Your task to perform on an android device: turn off priority inbox in the gmail app Image 0: 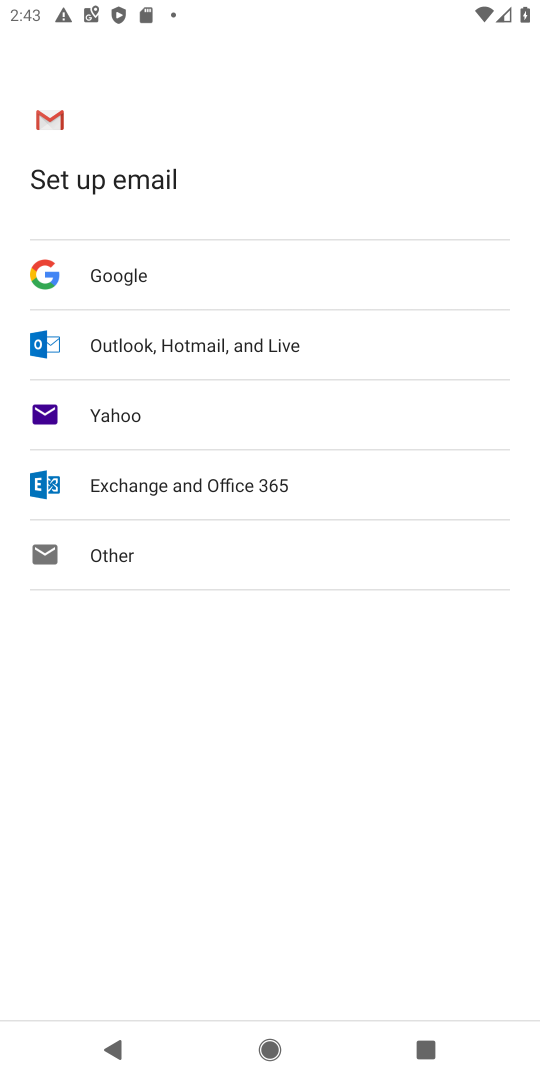
Step 0: press back button
Your task to perform on an android device: turn off priority inbox in the gmail app Image 1: 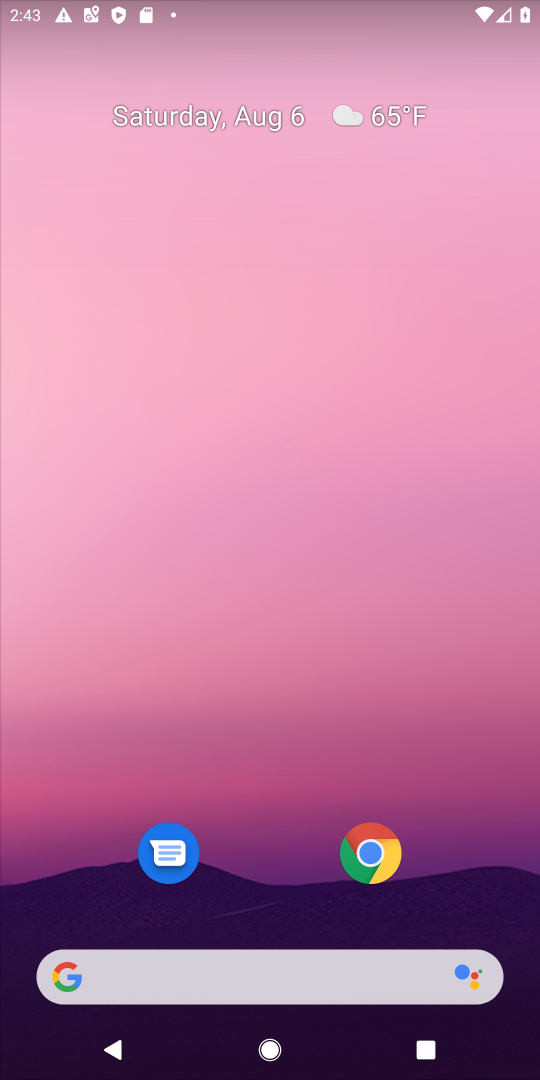
Step 1: drag from (255, 921) to (364, 171)
Your task to perform on an android device: turn off priority inbox in the gmail app Image 2: 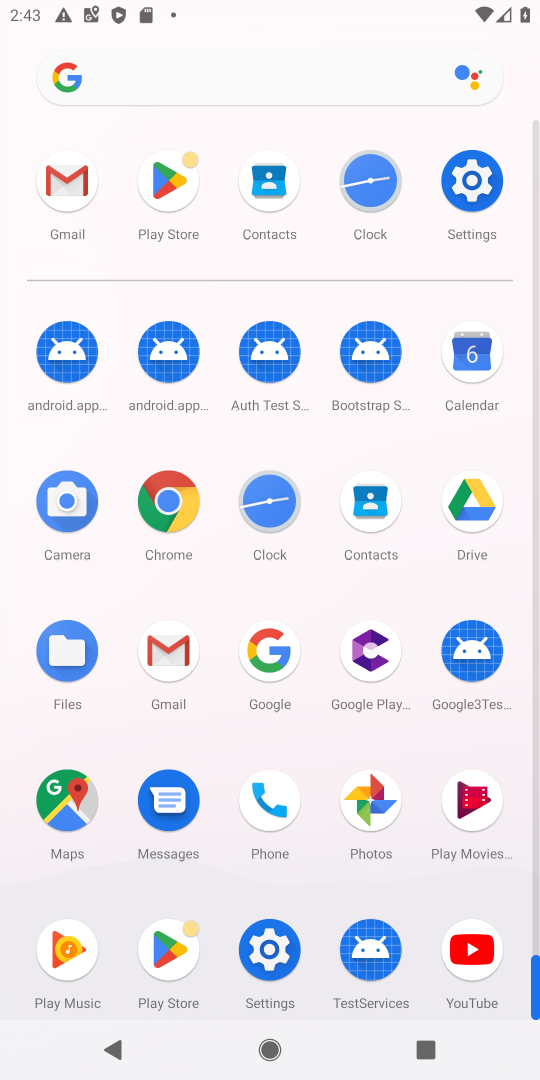
Step 2: click (79, 197)
Your task to perform on an android device: turn off priority inbox in the gmail app Image 3: 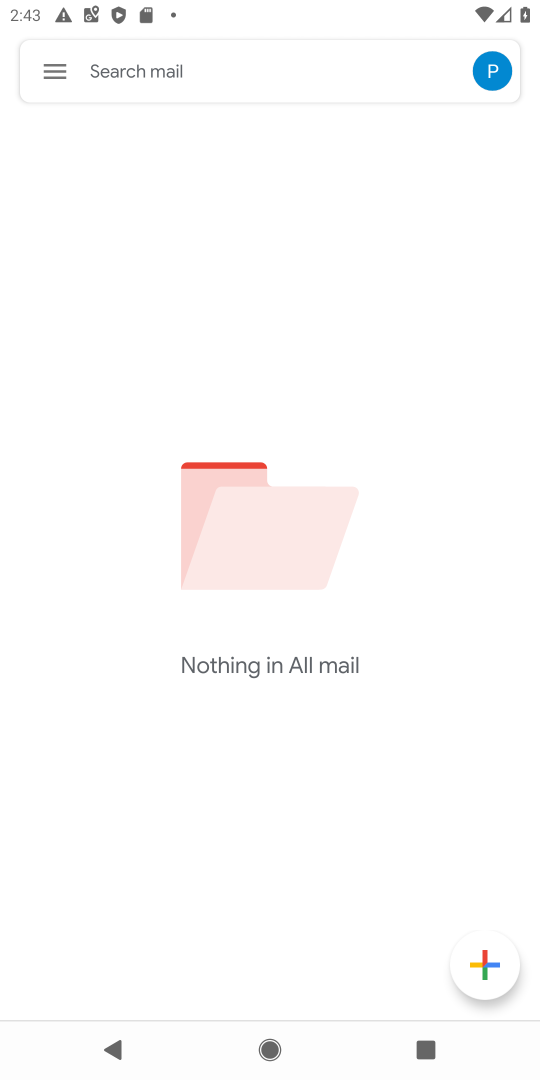
Step 3: click (66, 117)
Your task to perform on an android device: turn off priority inbox in the gmail app Image 4: 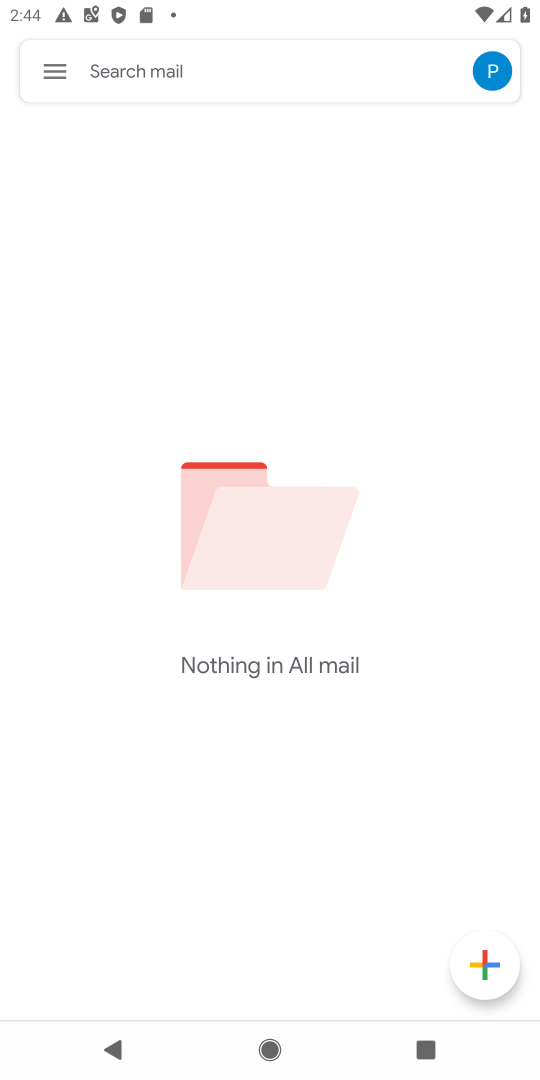
Step 4: click (59, 70)
Your task to perform on an android device: turn off priority inbox in the gmail app Image 5: 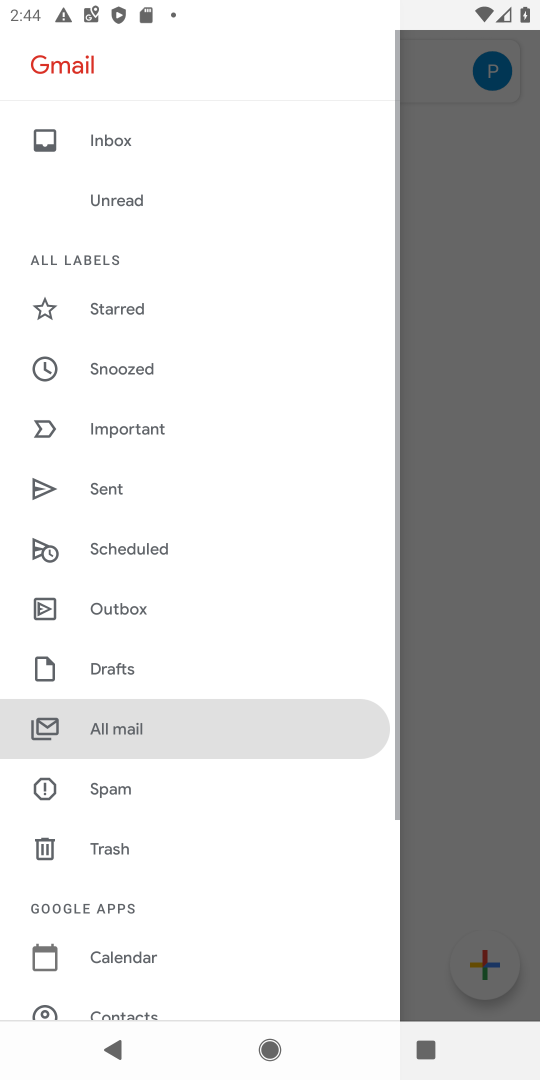
Step 5: drag from (201, 942) to (283, 113)
Your task to perform on an android device: turn off priority inbox in the gmail app Image 6: 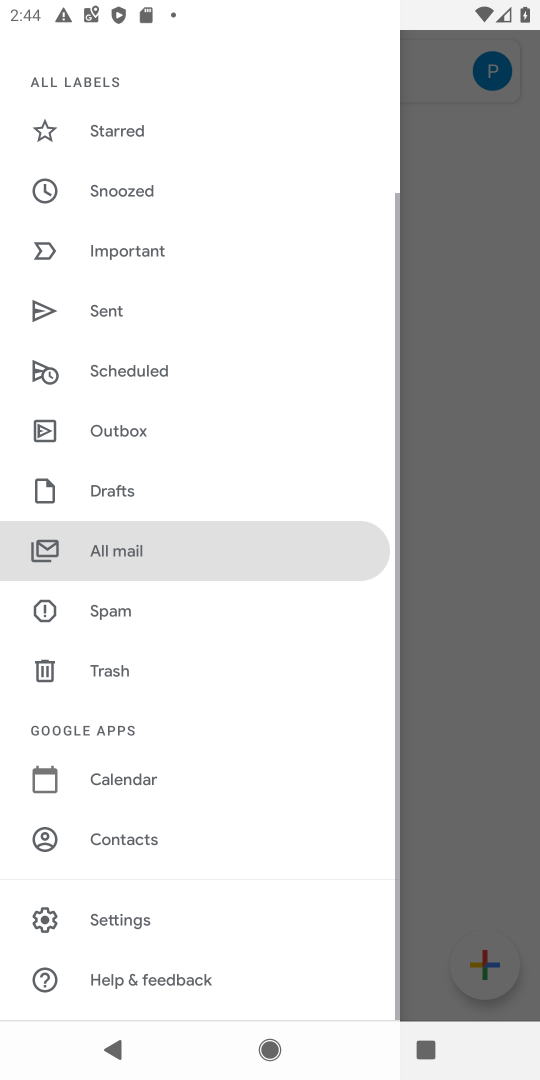
Step 6: click (126, 917)
Your task to perform on an android device: turn off priority inbox in the gmail app Image 7: 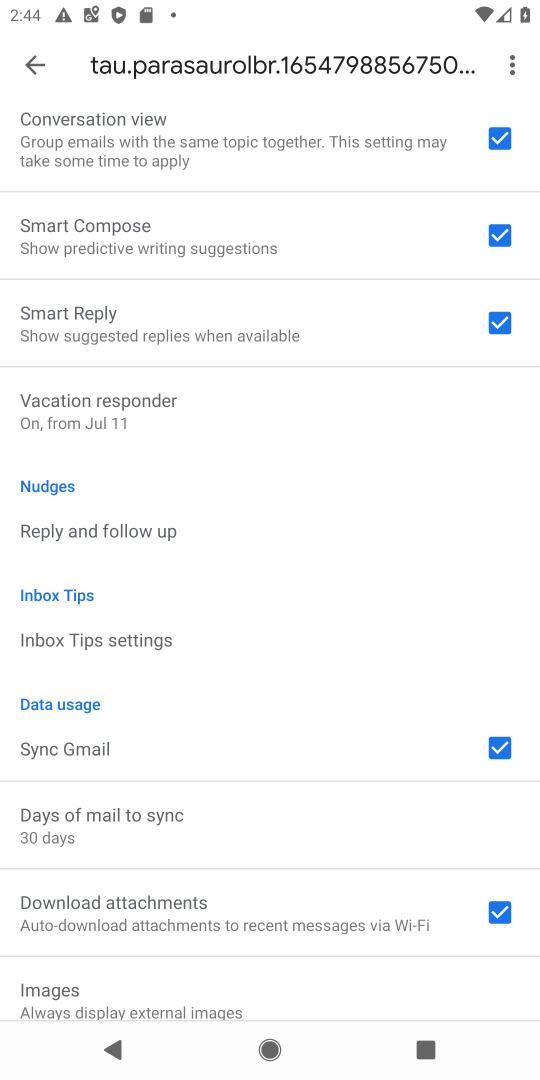
Step 7: drag from (272, 950) to (291, 1068)
Your task to perform on an android device: turn off priority inbox in the gmail app Image 8: 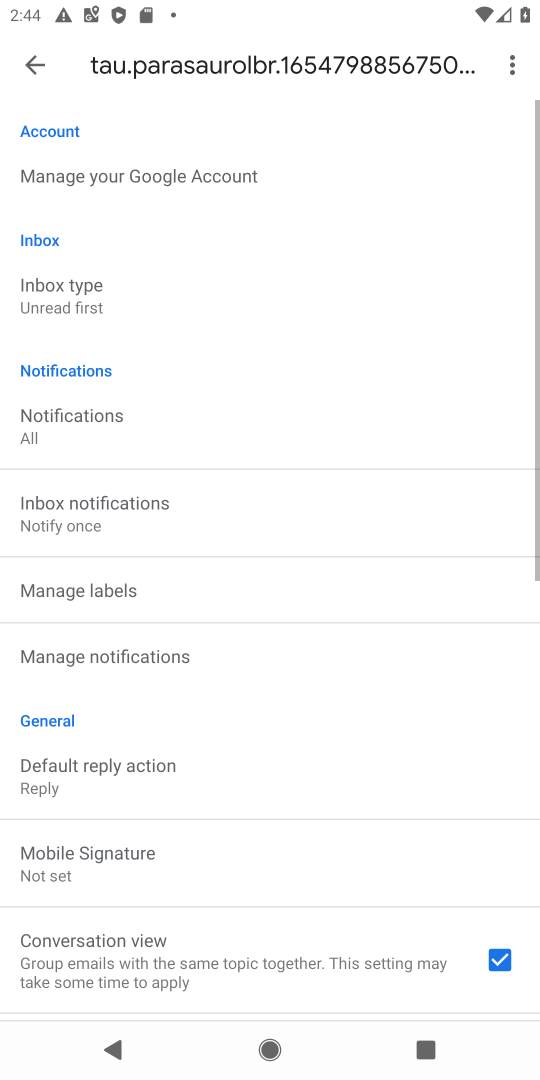
Step 8: drag from (257, 351) to (278, 859)
Your task to perform on an android device: turn off priority inbox in the gmail app Image 9: 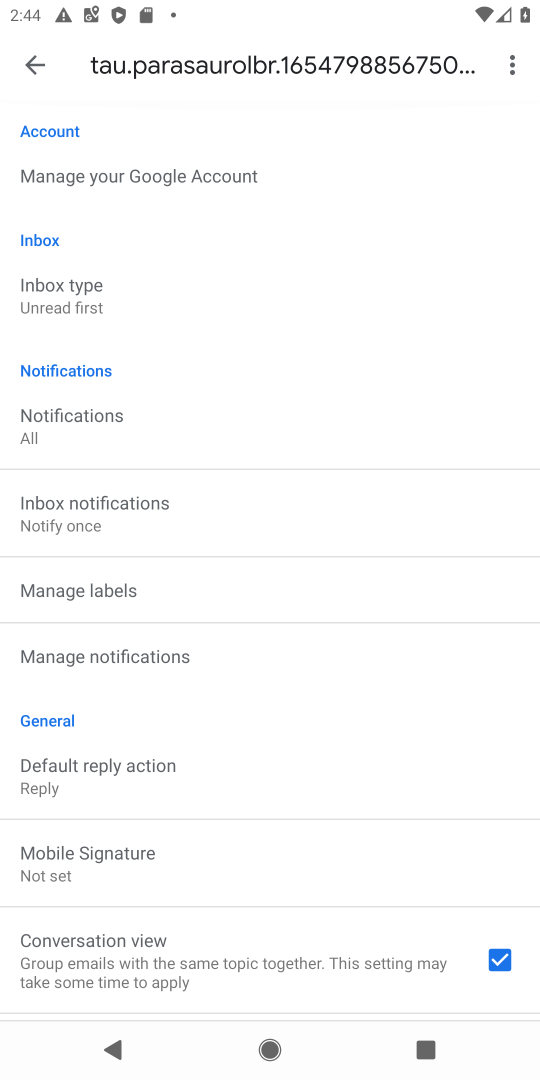
Step 9: click (48, 278)
Your task to perform on an android device: turn off priority inbox in the gmail app Image 10: 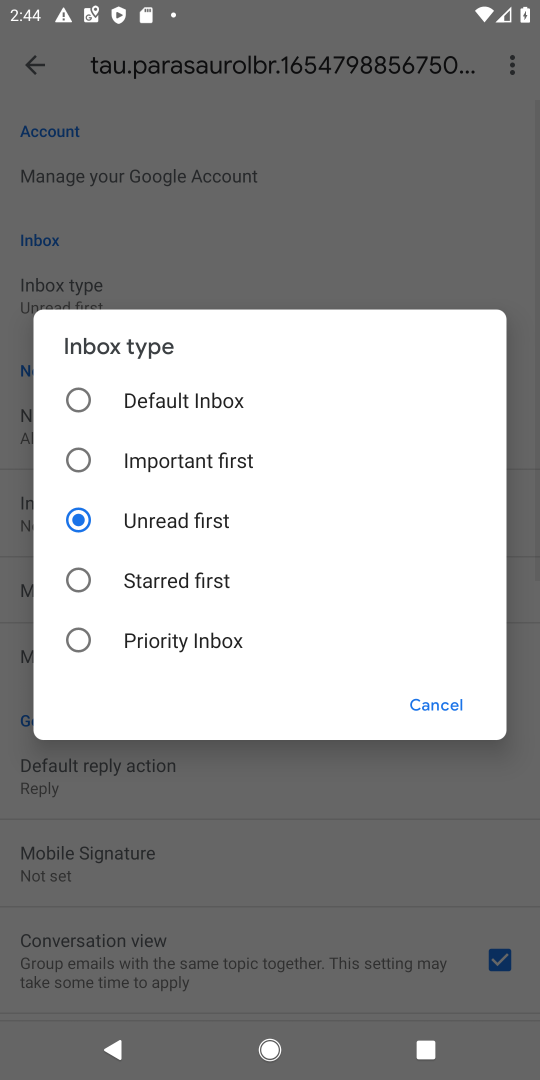
Step 10: task complete